Your task to perform on an android device: Open Google Chrome and click the shortcut for Amazon.com Image 0: 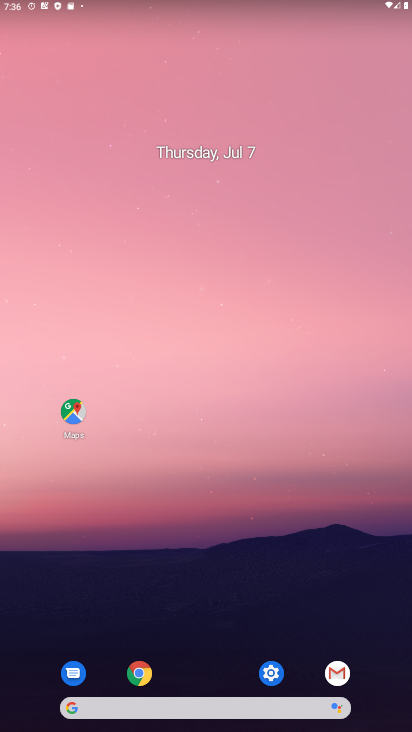
Step 0: click (134, 677)
Your task to perform on an android device: Open Google Chrome and click the shortcut for Amazon.com Image 1: 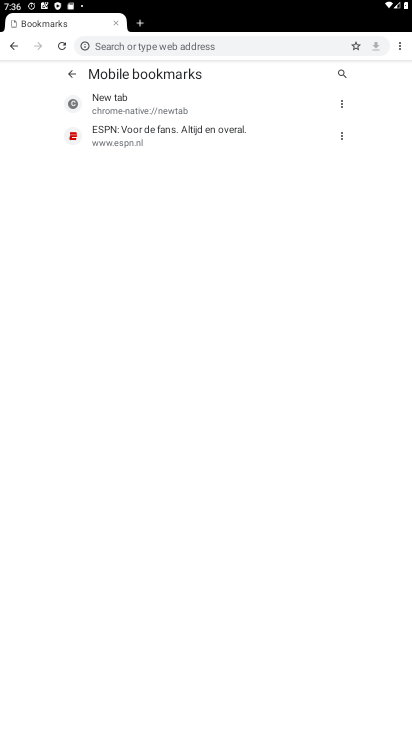
Step 1: click (12, 49)
Your task to perform on an android device: Open Google Chrome and click the shortcut for Amazon.com Image 2: 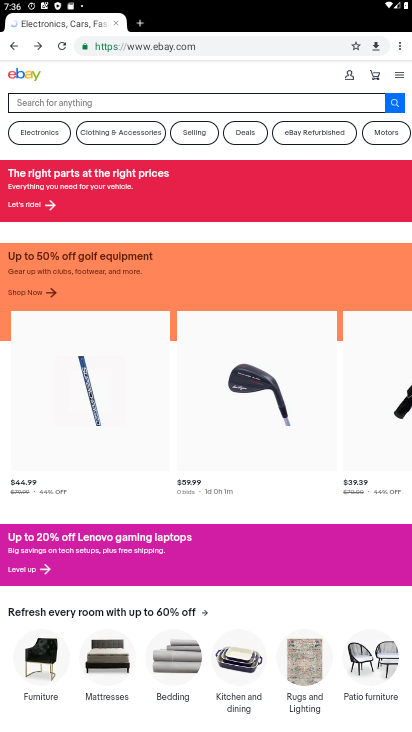
Step 2: click (378, 48)
Your task to perform on an android device: Open Google Chrome and click the shortcut for Amazon.com Image 3: 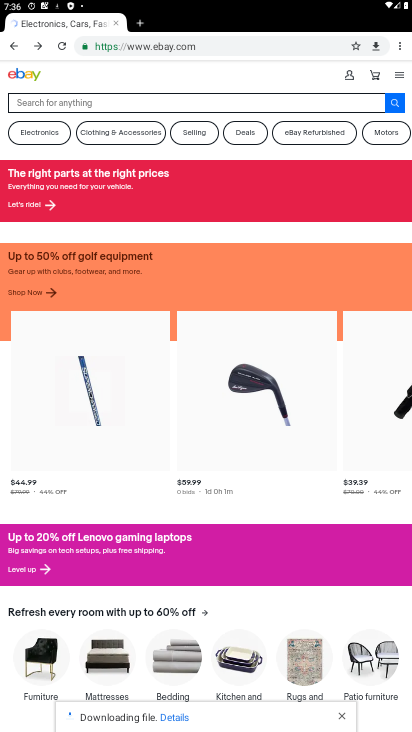
Step 3: click (381, 48)
Your task to perform on an android device: Open Google Chrome and click the shortcut for Amazon.com Image 4: 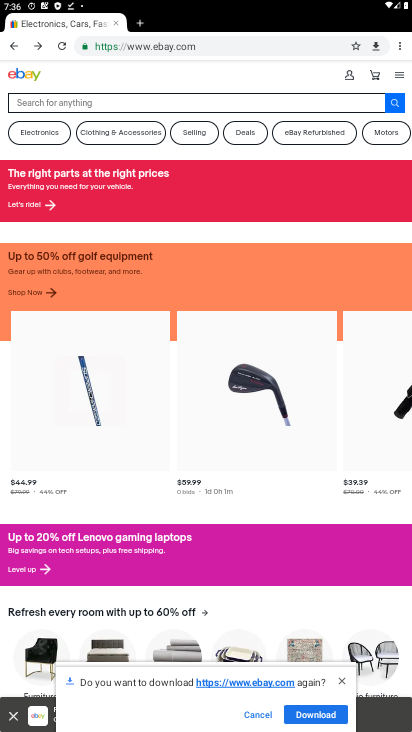
Step 4: click (398, 48)
Your task to perform on an android device: Open Google Chrome and click the shortcut for Amazon.com Image 5: 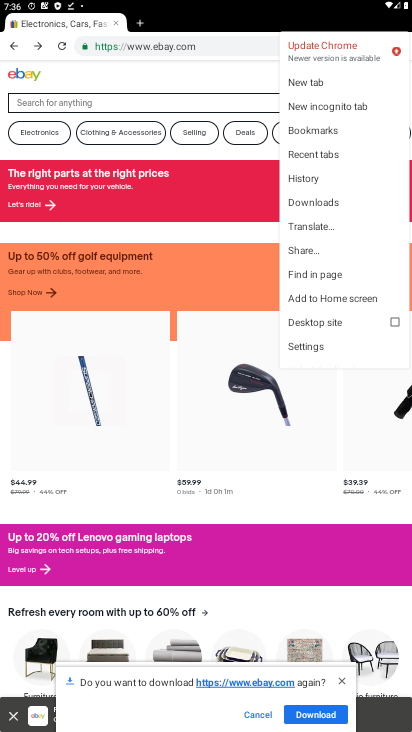
Step 5: click (307, 84)
Your task to perform on an android device: Open Google Chrome and click the shortcut for Amazon.com Image 6: 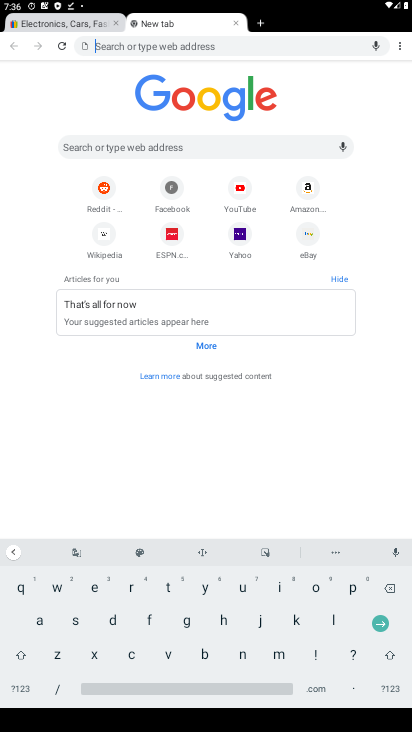
Step 6: click (302, 195)
Your task to perform on an android device: Open Google Chrome and click the shortcut for Amazon.com Image 7: 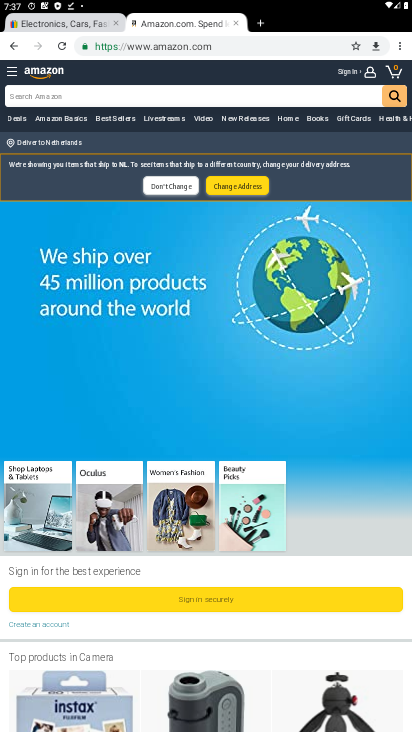
Step 7: task complete